Your task to perform on an android device: remove spam from my inbox in the gmail app Image 0: 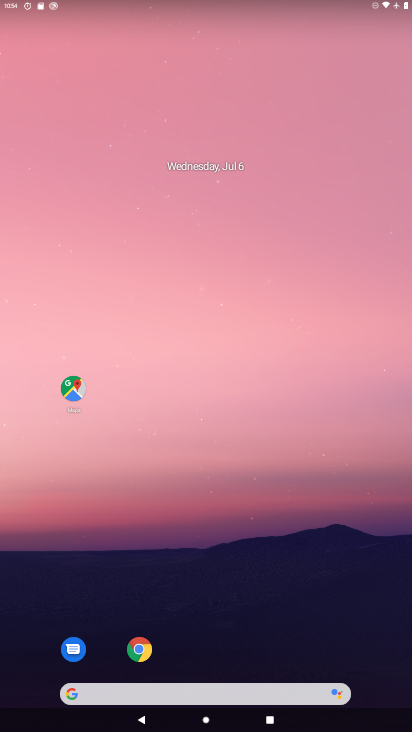
Step 0: drag from (382, 708) to (334, 185)
Your task to perform on an android device: remove spam from my inbox in the gmail app Image 1: 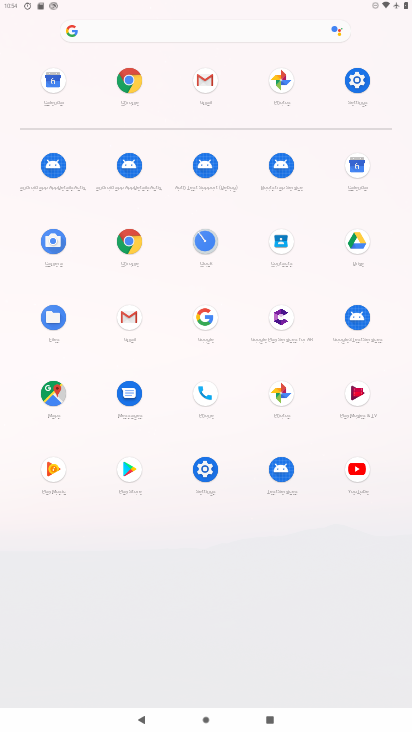
Step 1: click (143, 313)
Your task to perform on an android device: remove spam from my inbox in the gmail app Image 2: 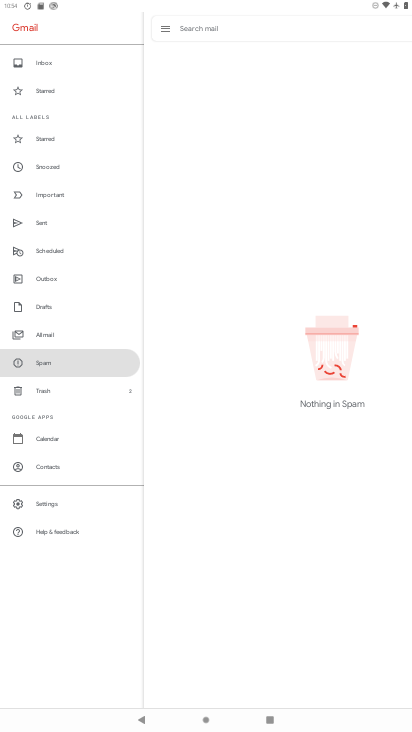
Step 2: click (39, 361)
Your task to perform on an android device: remove spam from my inbox in the gmail app Image 3: 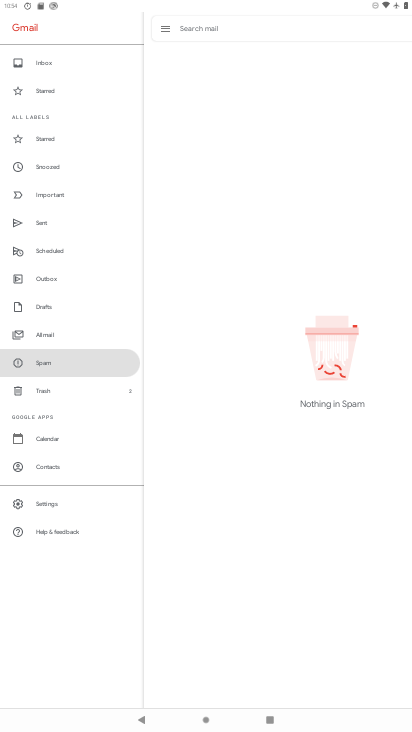
Step 3: click (49, 361)
Your task to perform on an android device: remove spam from my inbox in the gmail app Image 4: 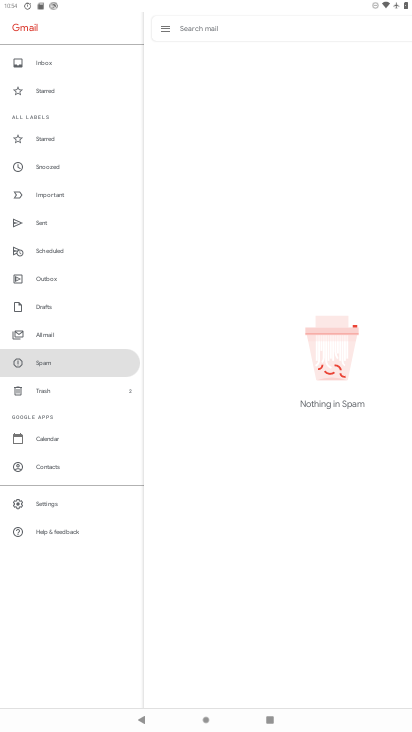
Step 4: task complete